Your task to perform on an android device: Open Google Image 0: 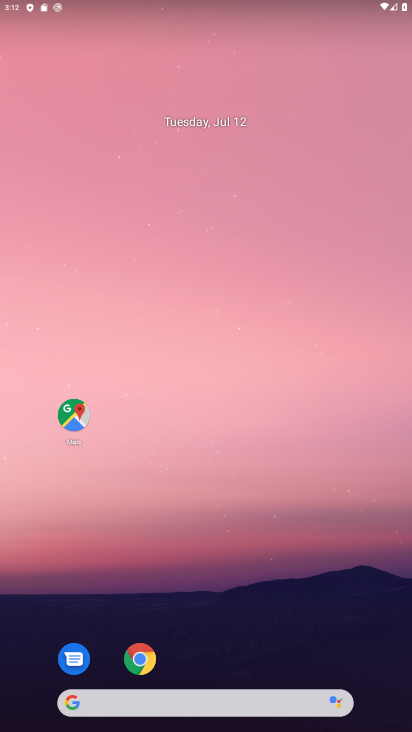
Step 0: click (146, 657)
Your task to perform on an android device: Open Google Image 1: 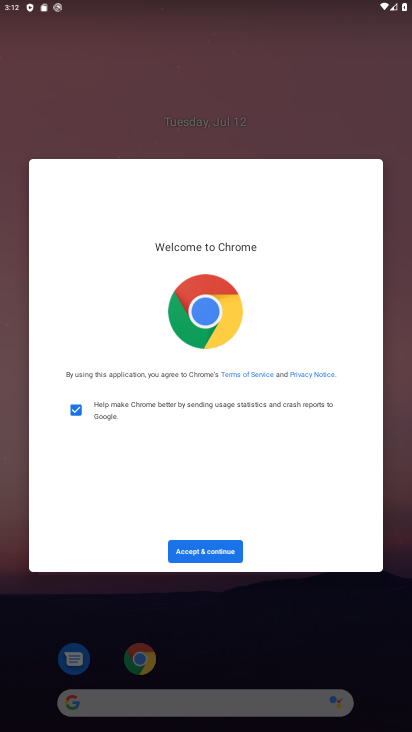
Step 1: click (222, 545)
Your task to perform on an android device: Open Google Image 2: 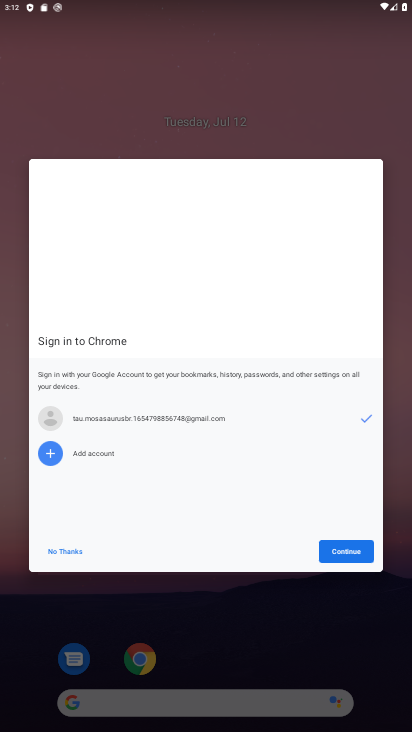
Step 2: click (368, 552)
Your task to perform on an android device: Open Google Image 3: 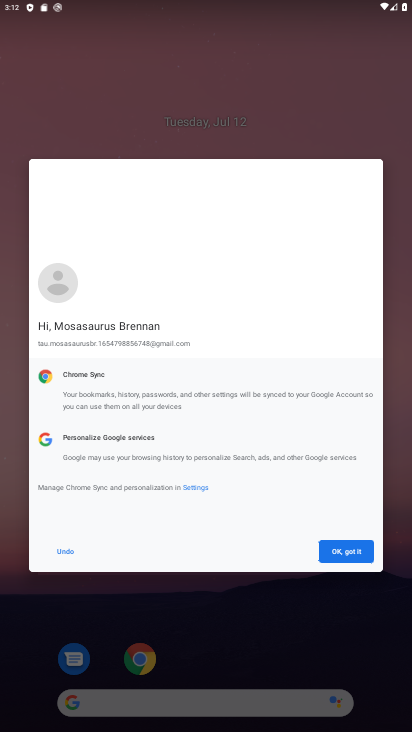
Step 3: click (346, 552)
Your task to perform on an android device: Open Google Image 4: 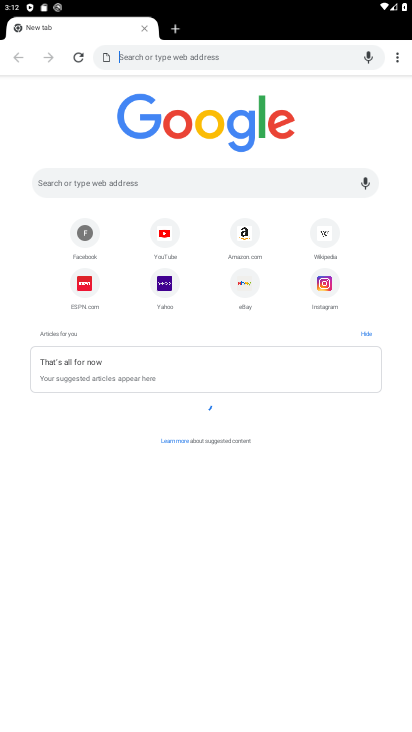
Step 4: task complete